Your task to perform on an android device: empty trash in google photos Image 0: 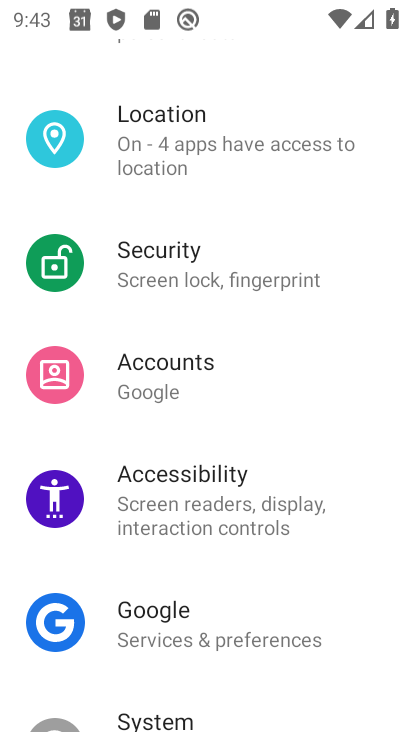
Step 0: press home button
Your task to perform on an android device: empty trash in google photos Image 1: 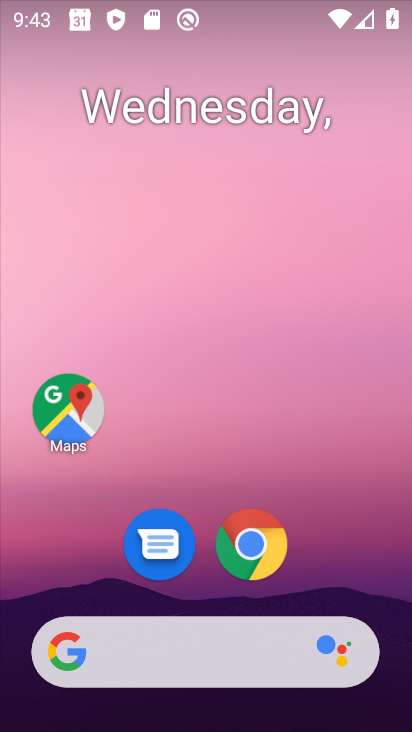
Step 1: drag from (337, 550) to (193, 1)
Your task to perform on an android device: empty trash in google photos Image 2: 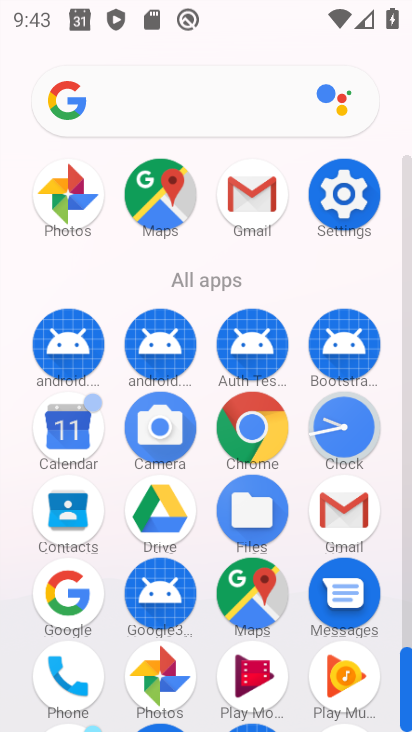
Step 2: click (162, 656)
Your task to perform on an android device: empty trash in google photos Image 3: 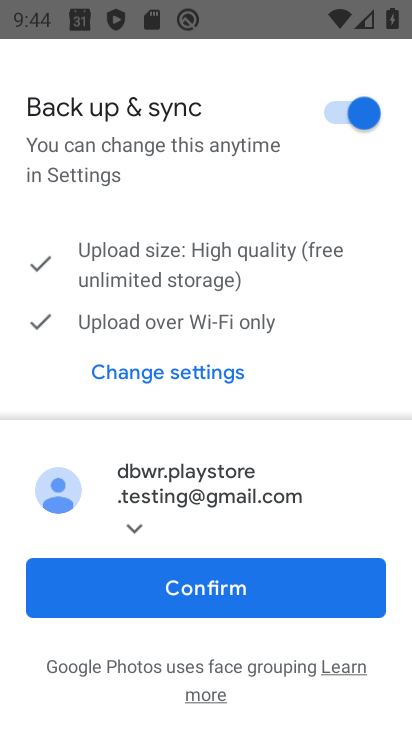
Step 3: click (196, 589)
Your task to perform on an android device: empty trash in google photos Image 4: 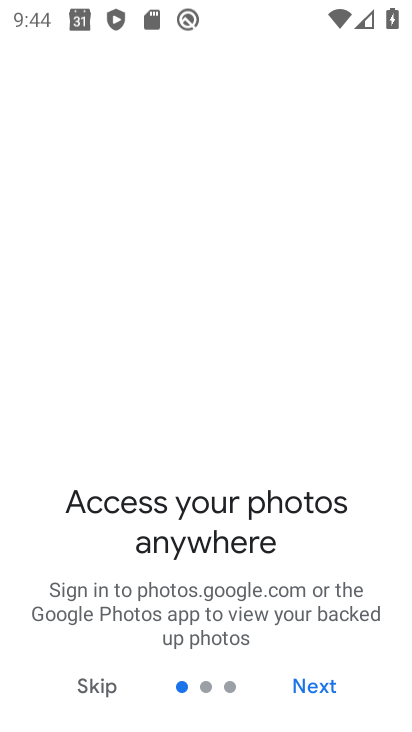
Step 4: click (316, 685)
Your task to perform on an android device: empty trash in google photos Image 5: 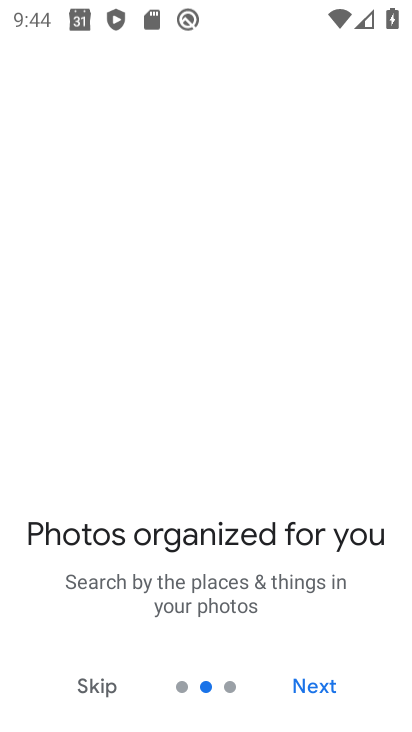
Step 5: click (317, 685)
Your task to perform on an android device: empty trash in google photos Image 6: 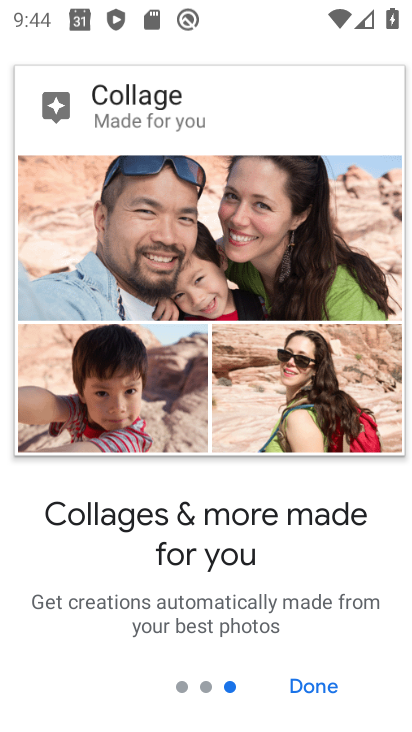
Step 6: click (297, 687)
Your task to perform on an android device: empty trash in google photos Image 7: 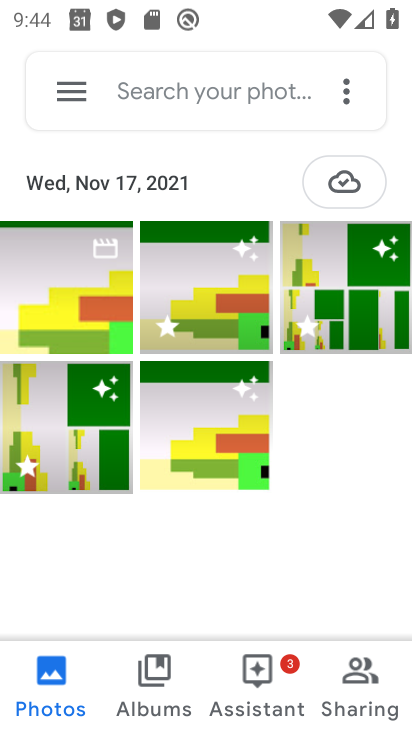
Step 7: click (85, 93)
Your task to perform on an android device: empty trash in google photos Image 8: 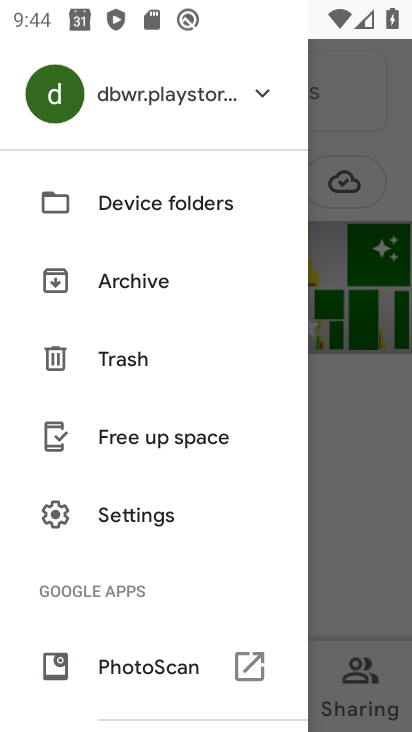
Step 8: click (127, 351)
Your task to perform on an android device: empty trash in google photos Image 9: 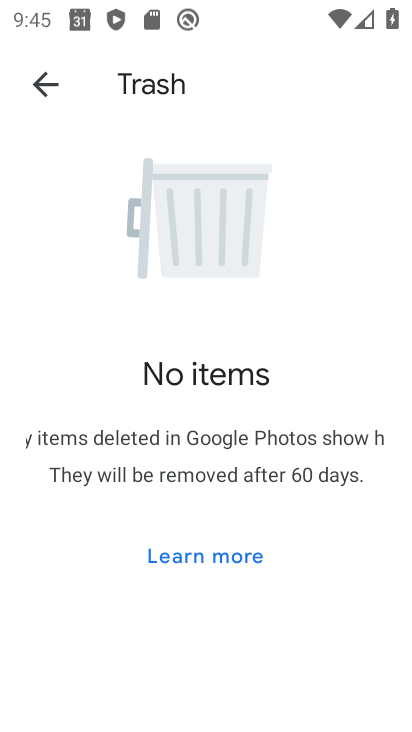
Step 9: task complete